Your task to perform on an android device: turn on airplane mode Image 0: 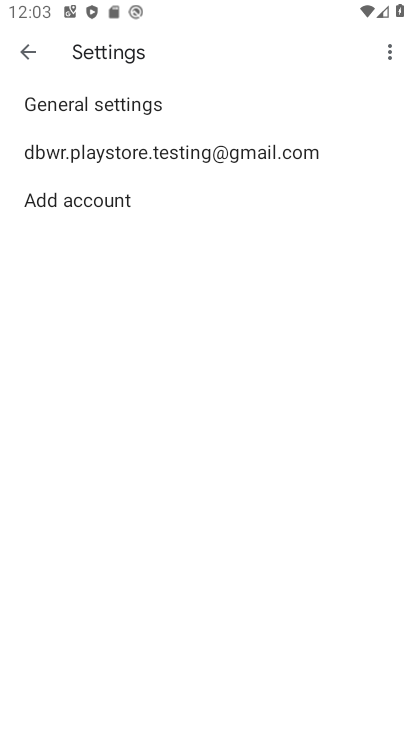
Step 0: press home button
Your task to perform on an android device: turn on airplane mode Image 1: 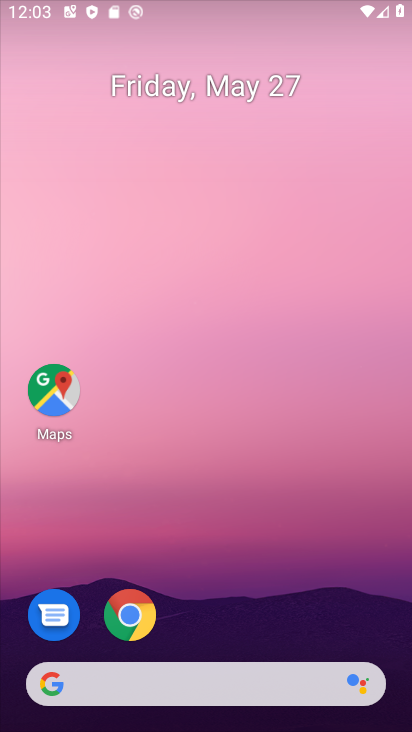
Step 1: drag from (214, 657) to (302, 54)
Your task to perform on an android device: turn on airplane mode Image 2: 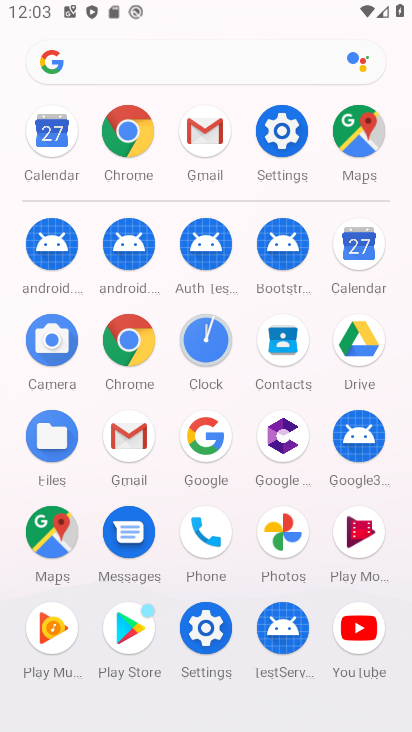
Step 2: click (298, 131)
Your task to perform on an android device: turn on airplane mode Image 3: 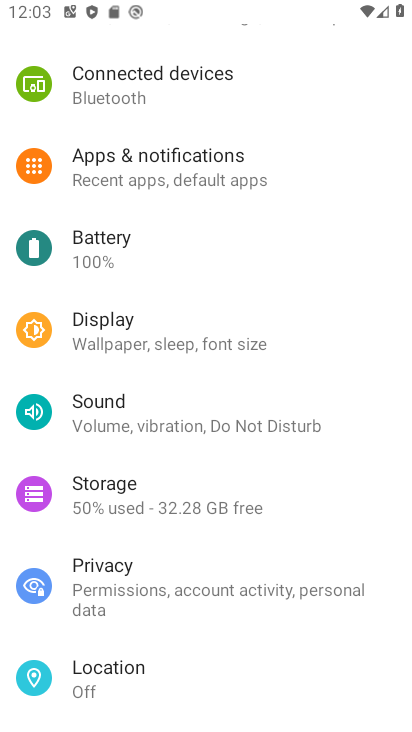
Step 3: drag from (298, 131) to (330, 729)
Your task to perform on an android device: turn on airplane mode Image 4: 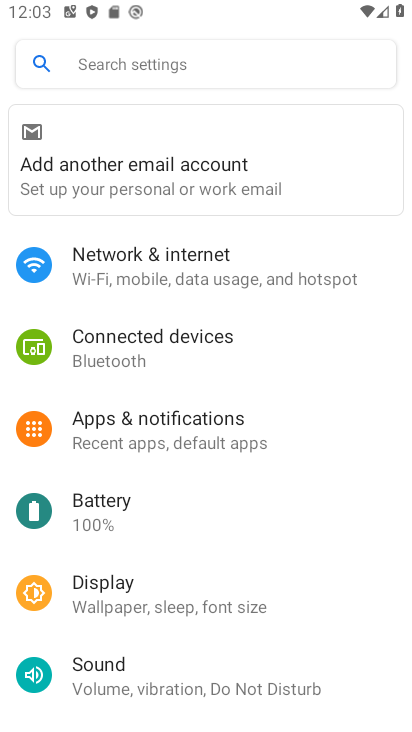
Step 4: click (148, 259)
Your task to perform on an android device: turn on airplane mode Image 5: 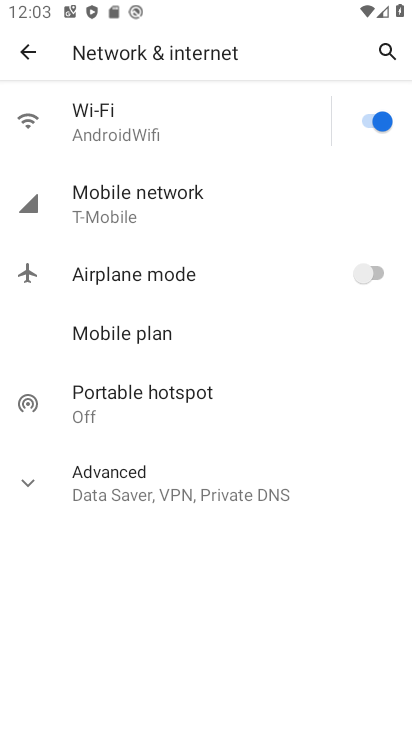
Step 5: click (381, 274)
Your task to perform on an android device: turn on airplane mode Image 6: 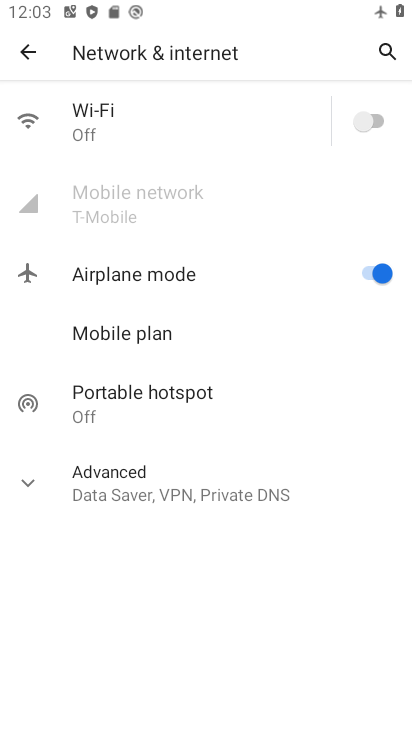
Step 6: task complete